Your task to perform on an android device: open a bookmark in the chrome app Image 0: 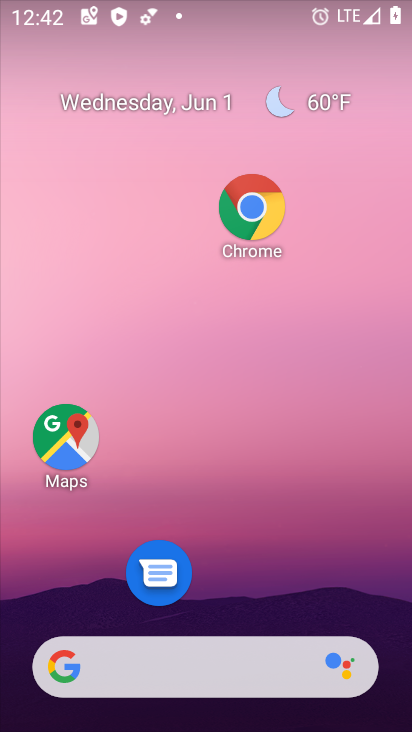
Step 0: click (256, 219)
Your task to perform on an android device: open a bookmark in the chrome app Image 1: 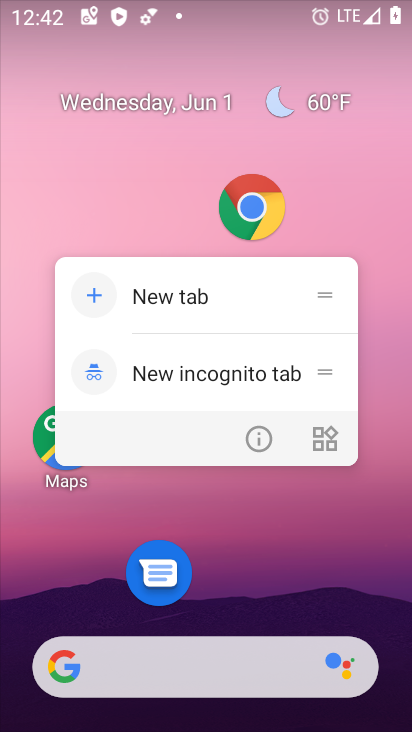
Step 1: click (253, 223)
Your task to perform on an android device: open a bookmark in the chrome app Image 2: 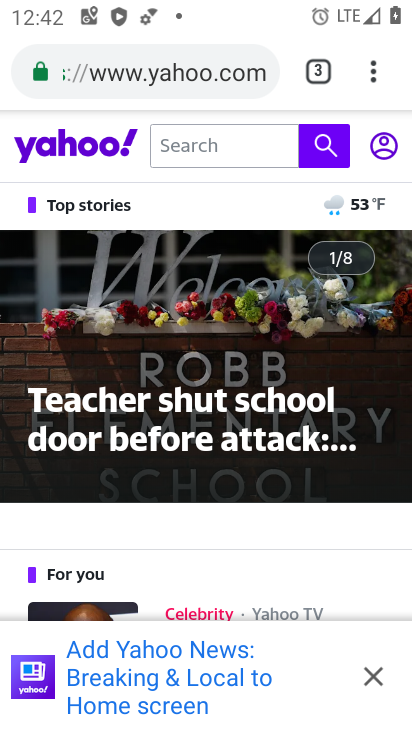
Step 2: drag from (376, 68) to (167, 293)
Your task to perform on an android device: open a bookmark in the chrome app Image 3: 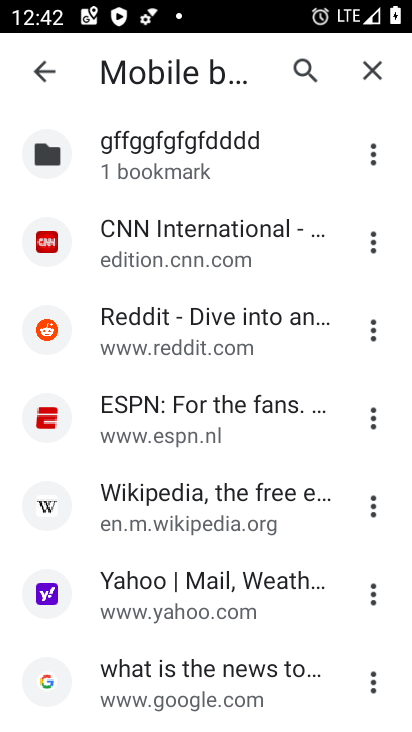
Step 3: drag from (142, 572) to (177, 336)
Your task to perform on an android device: open a bookmark in the chrome app Image 4: 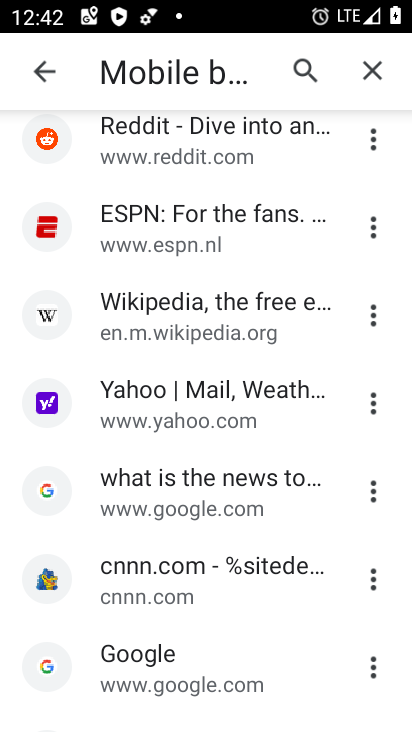
Step 4: click (143, 335)
Your task to perform on an android device: open a bookmark in the chrome app Image 5: 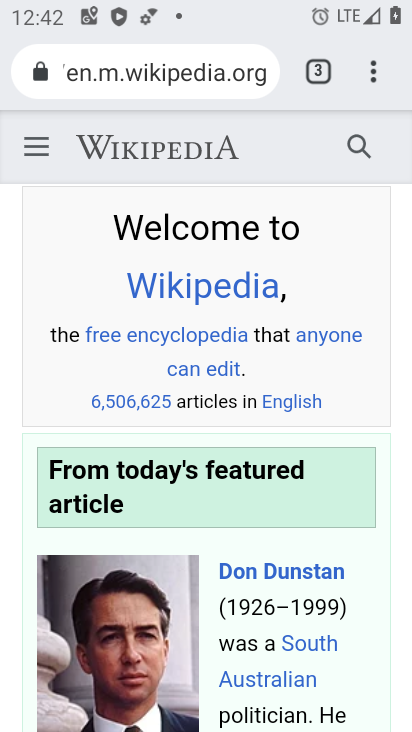
Step 5: task complete